Your task to perform on an android device: move an email to a new category in the gmail app Image 0: 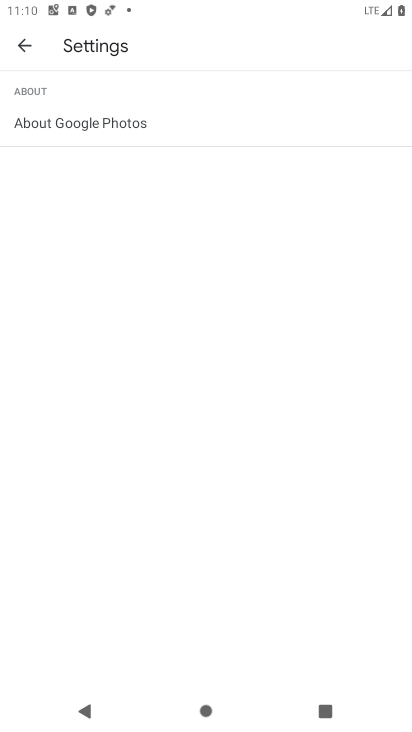
Step 0: press home button
Your task to perform on an android device: move an email to a new category in the gmail app Image 1: 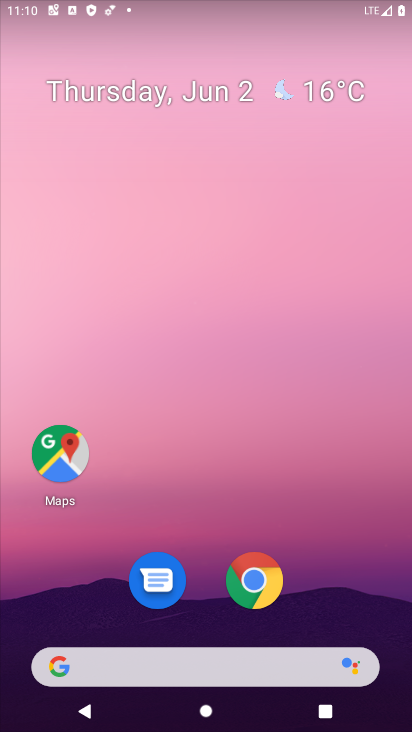
Step 1: drag from (224, 635) to (229, 302)
Your task to perform on an android device: move an email to a new category in the gmail app Image 2: 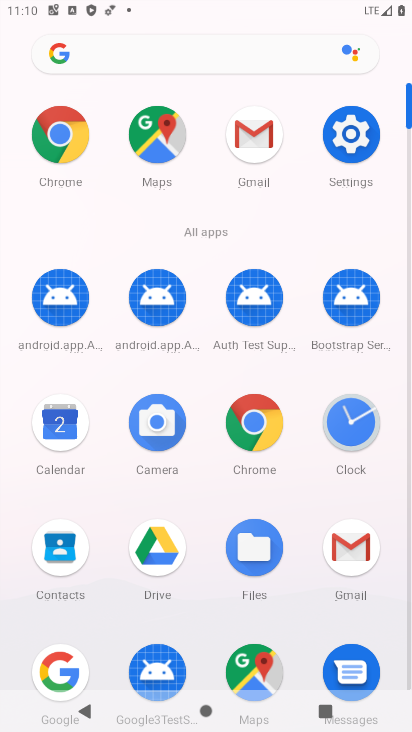
Step 2: click (346, 554)
Your task to perform on an android device: move an email to a new category in the gmail app Image 3: 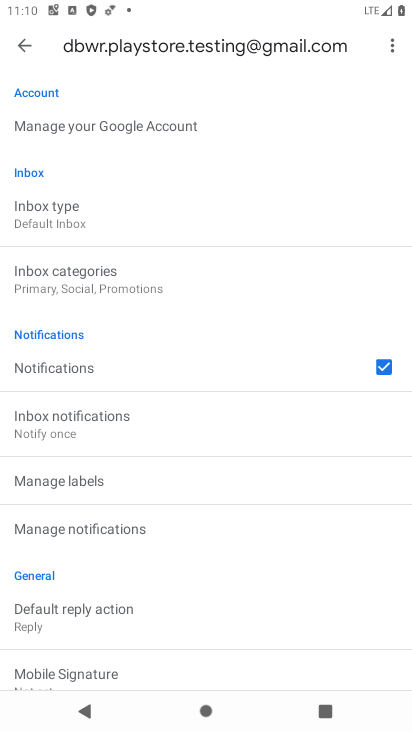
Step 3: click (25, 48)
Your task to perform on an android device: move an email to a new category in the gmail app Image 4: 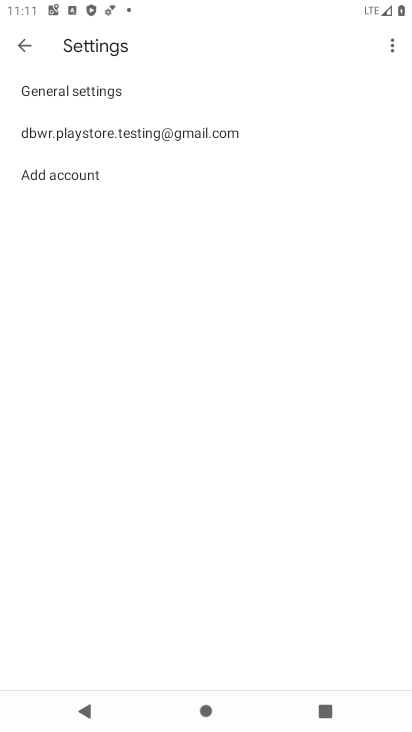
Step 4: click (24, 47)
Your task to perform on an android device: move an email to a new category in the gmail app Image 5: 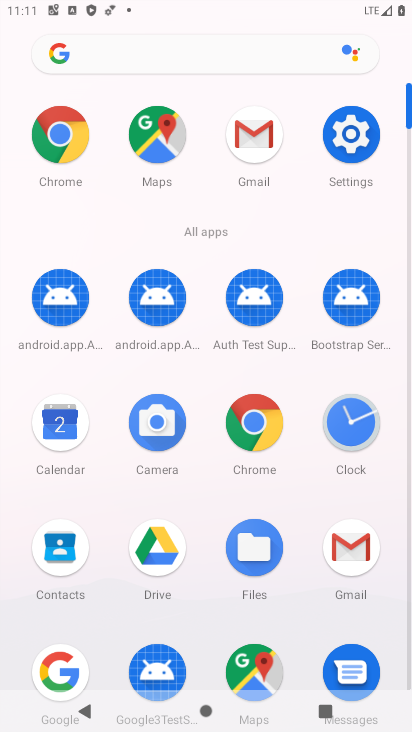
Step 5: click (367, 561)
Your task to perform on an android device: move an email to a new category in the gmail app Image 6: 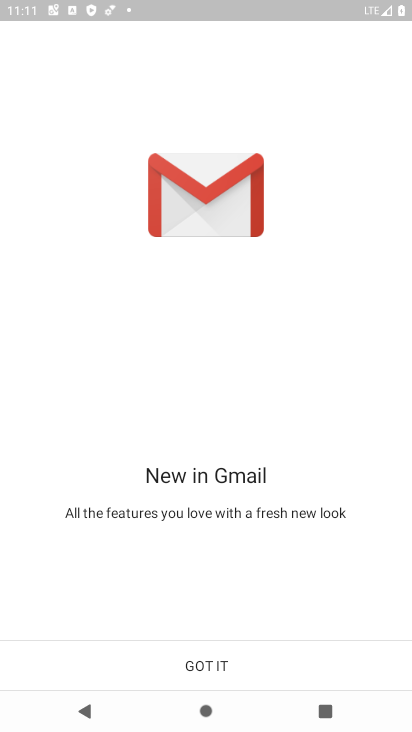
Step 6: click (220, 669)
Your task to perform on an android device: move an email to a new category in the gmail app Image 7: 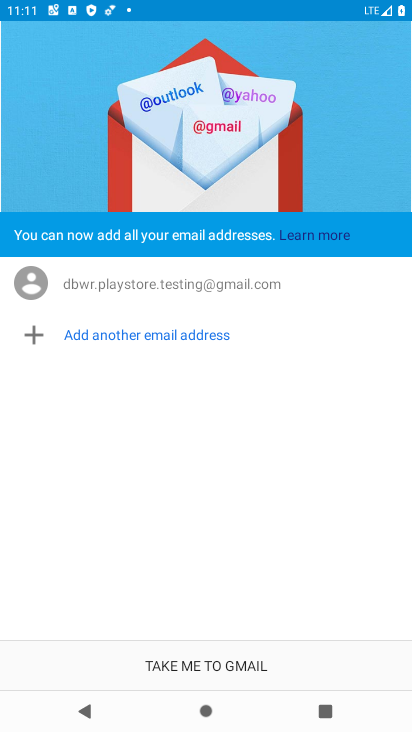
Step 7: click (219, 666)
Your task to perform on an android device: move an email to a new category in the gmail app Image 8: 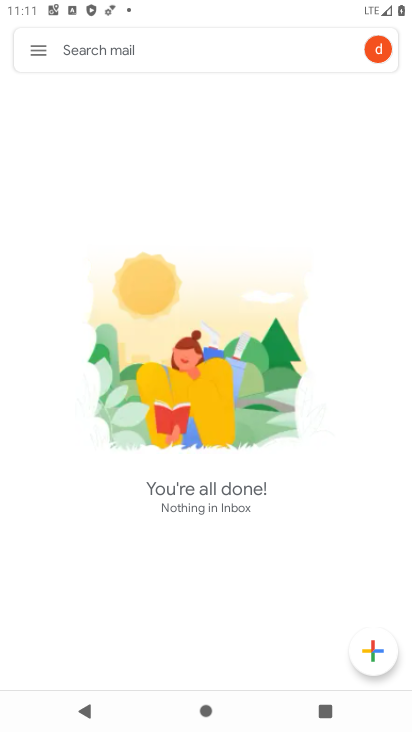
Step 8: click (37, 66)
Your task to perform on an android device: move an email to a new category in the gmail app Image 9: 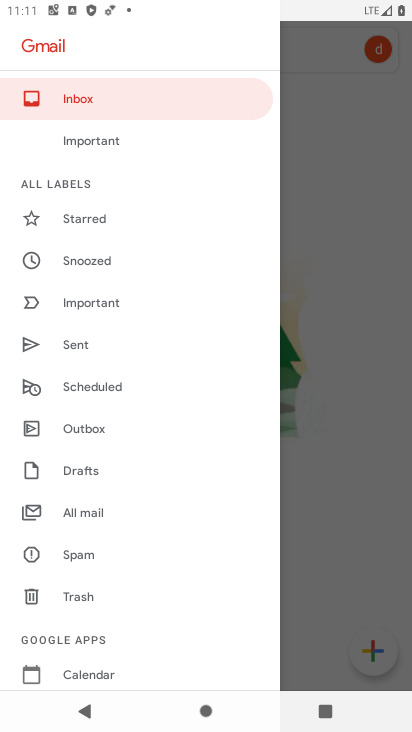
Step 9: click (88, 516)
Your task to perform on an android device: move an email to a new category in the gmail app Image 10: 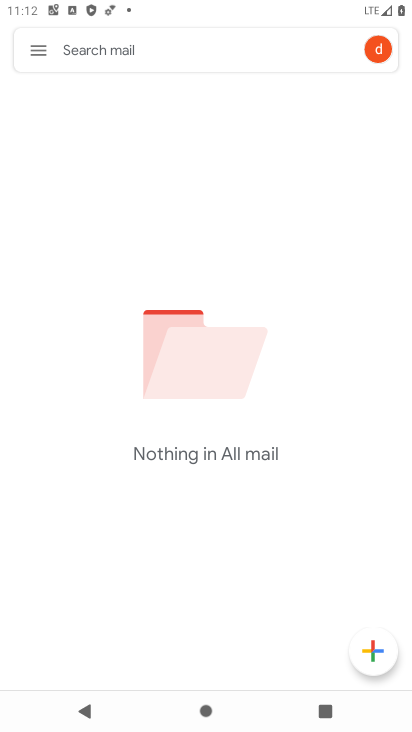
Step 10: task complete